Your task to perform on an android device: Clear all items from cart on target.com. Search for "logitech g pro" on target.com, select the first entry, and add it to the cart. Image 0: 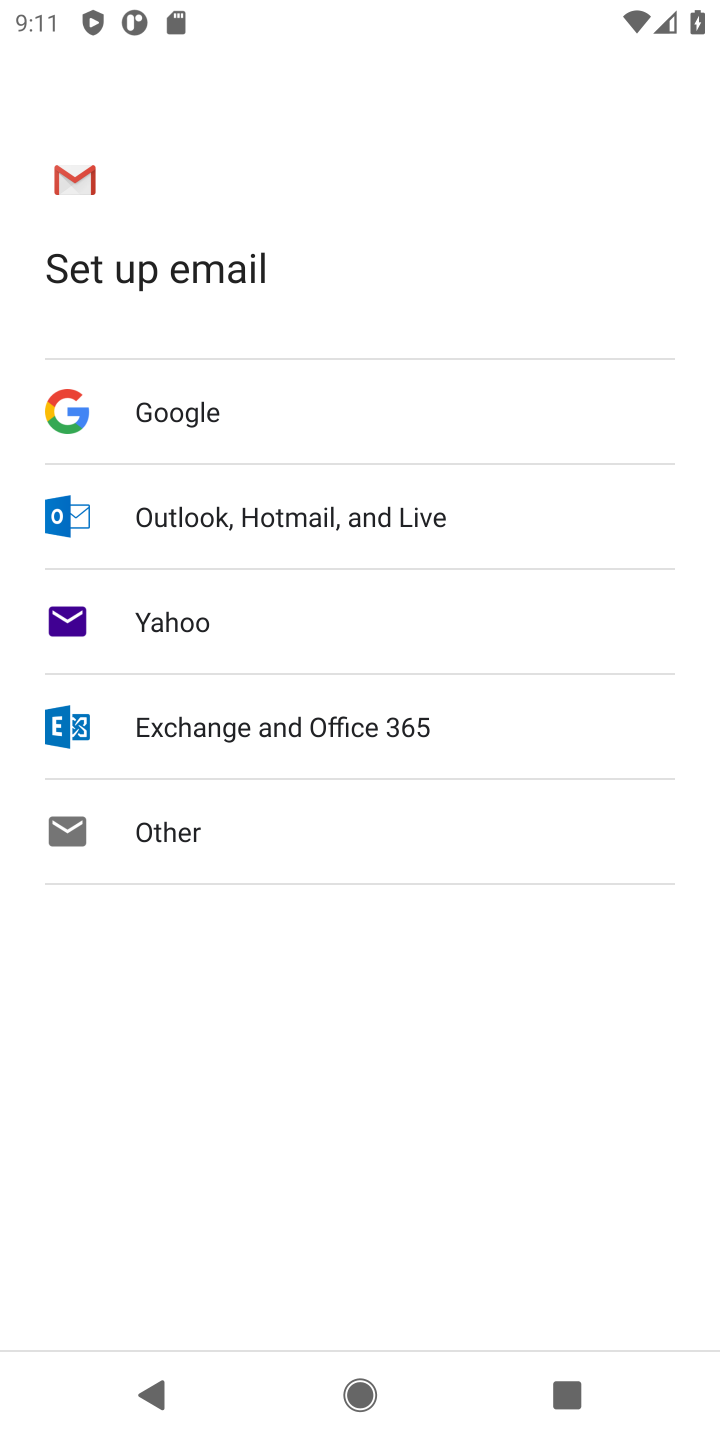
Step 0: press home button
Your task to perform on an android device: Clear all items from cart on target.com. Search for "logitech g pro" on target.com, select the first entry, and add it to the cart. Image 1: 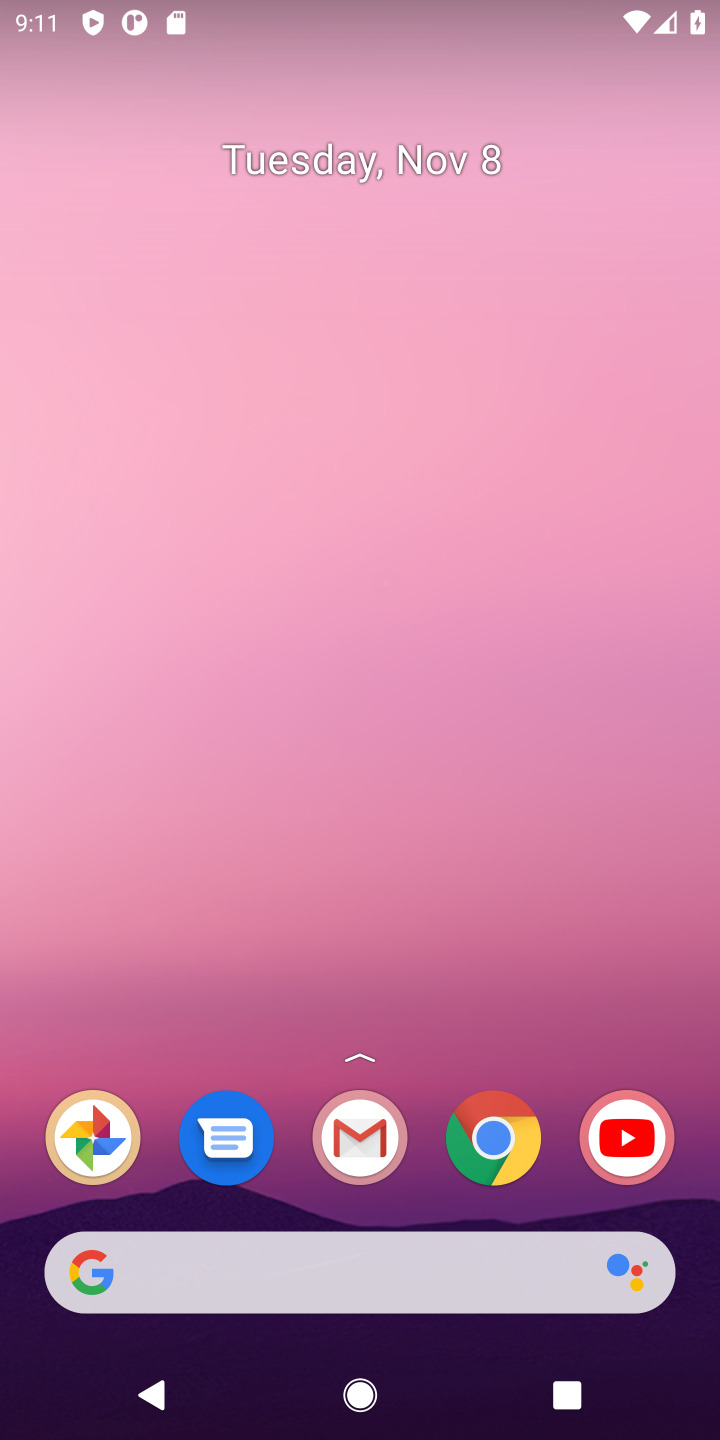
Step 1: click (503, 1128)
Your task to perform on an android device: Clear all items from cart on target.com. Search for "logitech g pro" on target.com, select the first entry, and add it to the cart. Image 2: 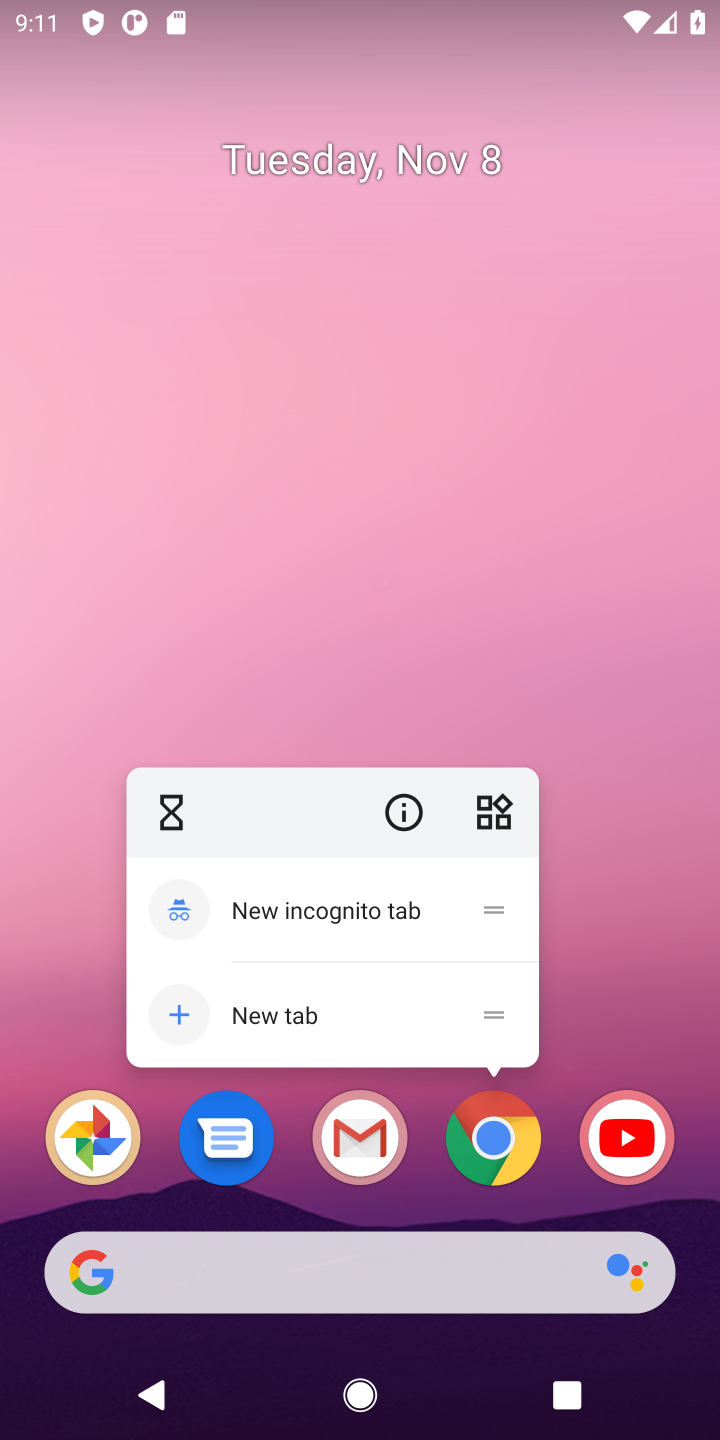
Step 2: click (503, 1127)
Your task to perform on an android device: Clear all items from cart on target.com. Search for "logitech g pro" on target.com, select the first entry, and add it to the cart. Image 3: 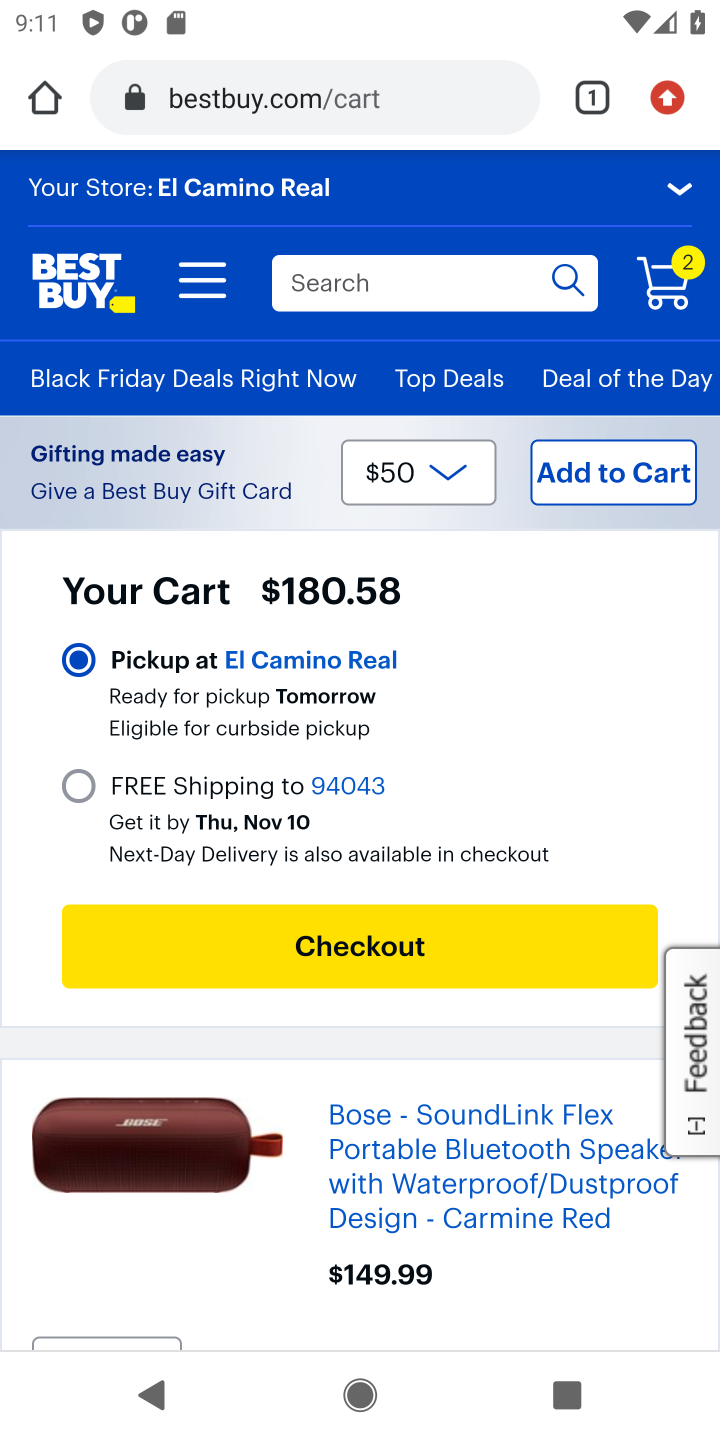
Step 3: click (360, 94)
Your task to perform on an android device: Clear all items from cart on target.com. Search for "logitech g pro" on target.com, select the first entry, and add it to the cart. Image 4: 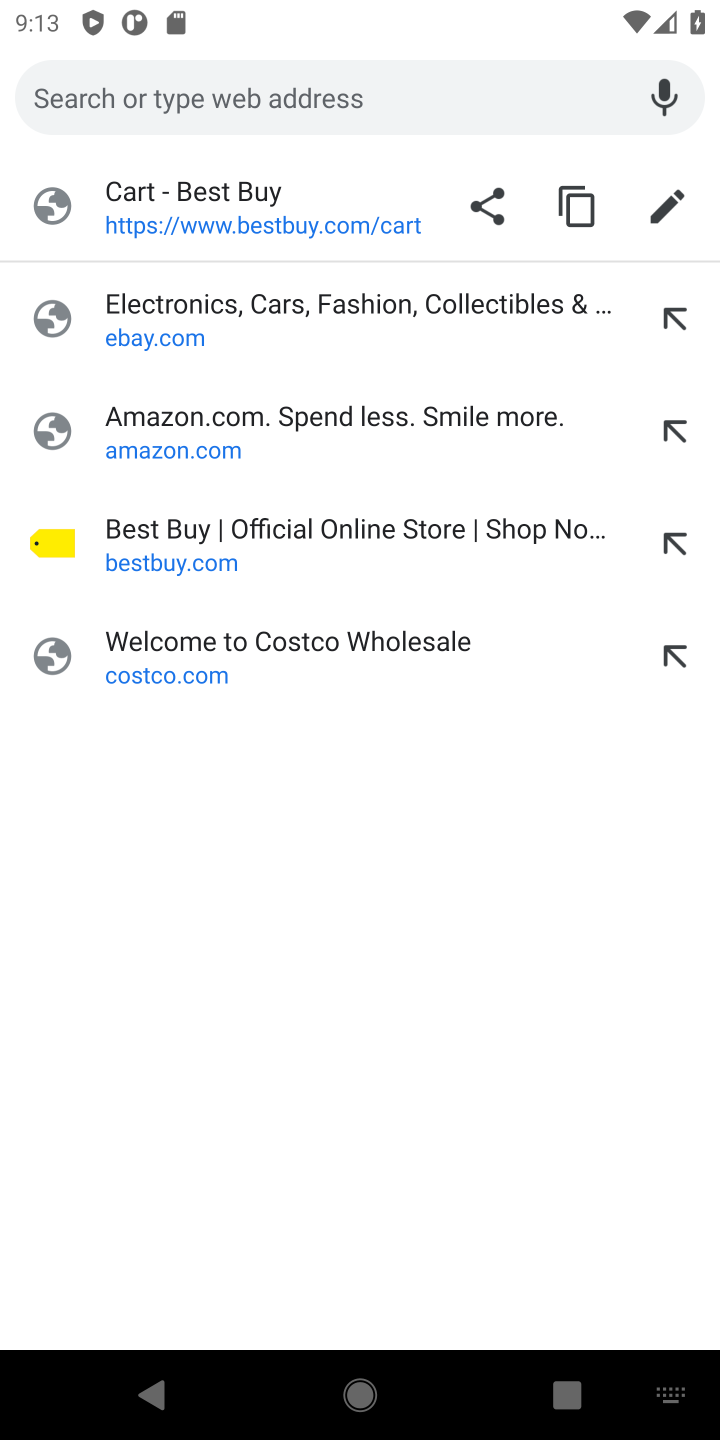
Step 4: type " target.com"
Your task to perform on an android device: Clear all items from cart on target.com. Search for "logitech g pro" on target.com, select the first entry, and add it to the cart. Image 5: 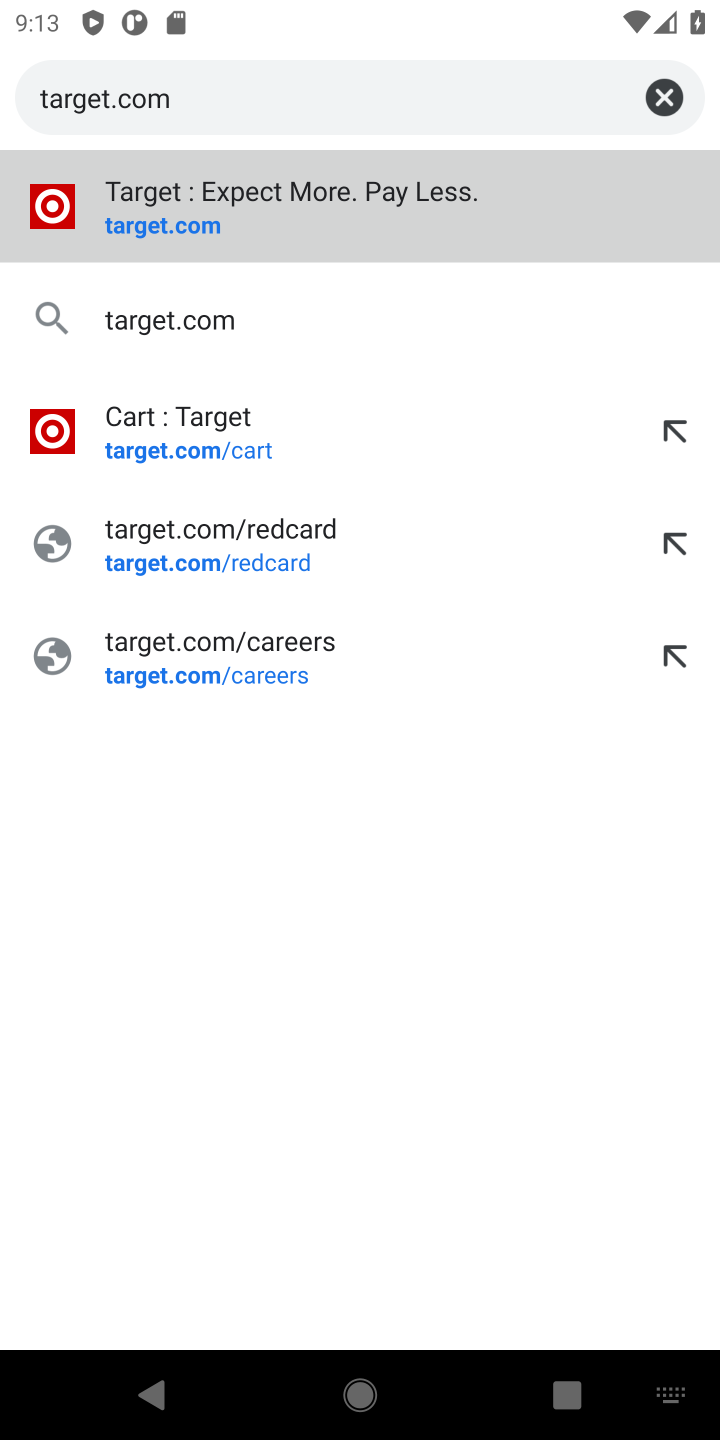
Step 5: press enter
Your task to perform on an android device: Clear all items from cart on target.com. Search for "logitech g pro" on target.com, select the first entry, and add it to the cart. Image 6: 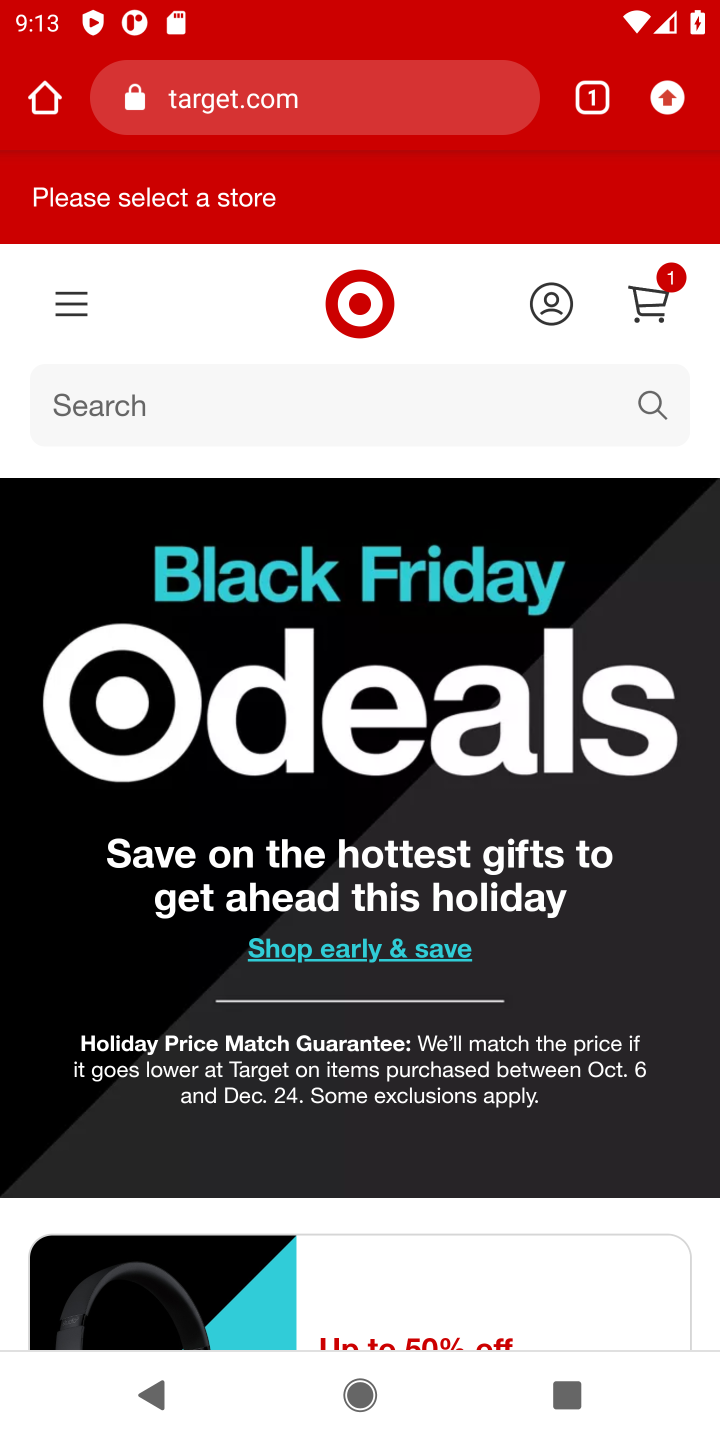
Step 6: click (176, 404)
Your task to perform on an android device: Clear all items from cart on target.com. Search for "logitech g pro" on target.com, select the first entry, and add it to the cart. Image 7: 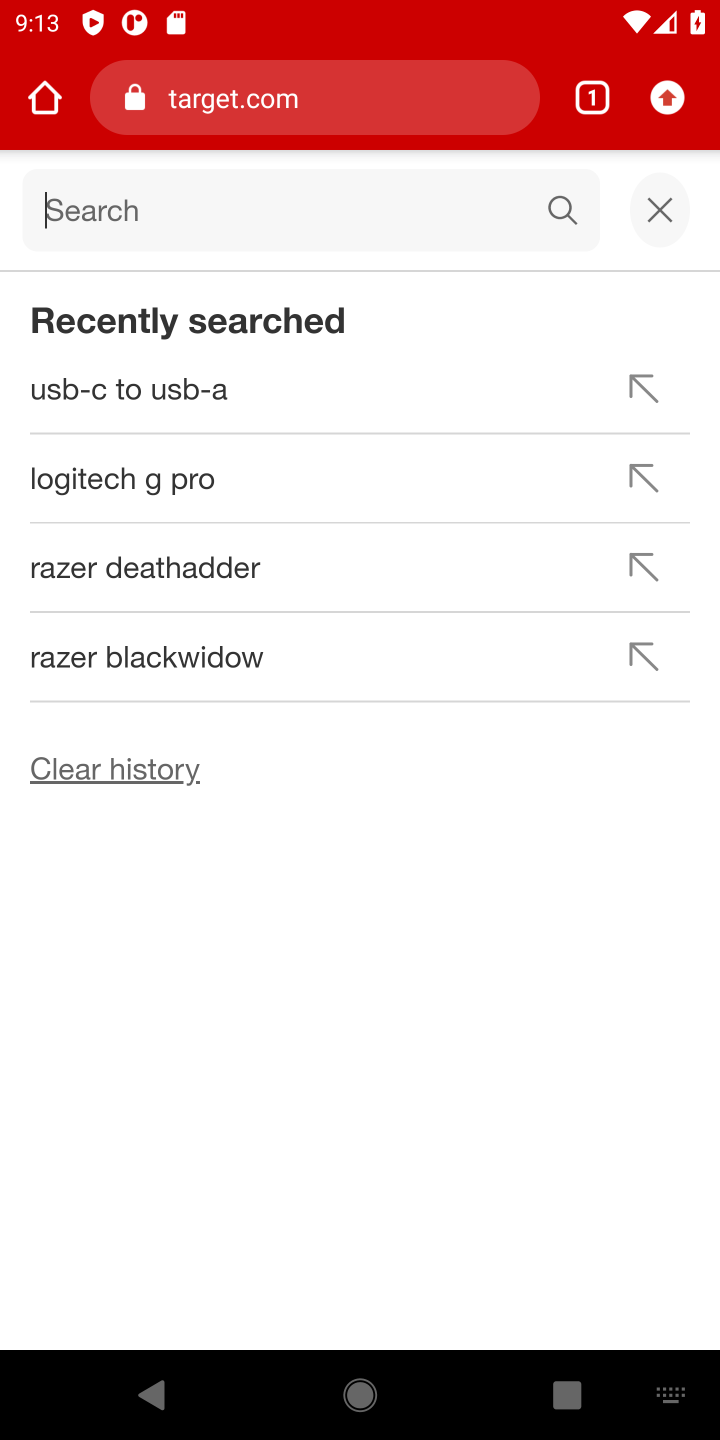
Step 7: type "logitech g pro"
Your task to perform on an android device: Clear all items from cart on target.com. Search for "logitech g pro" on target.com, select the first entry, and add it to the cart. Image 8: 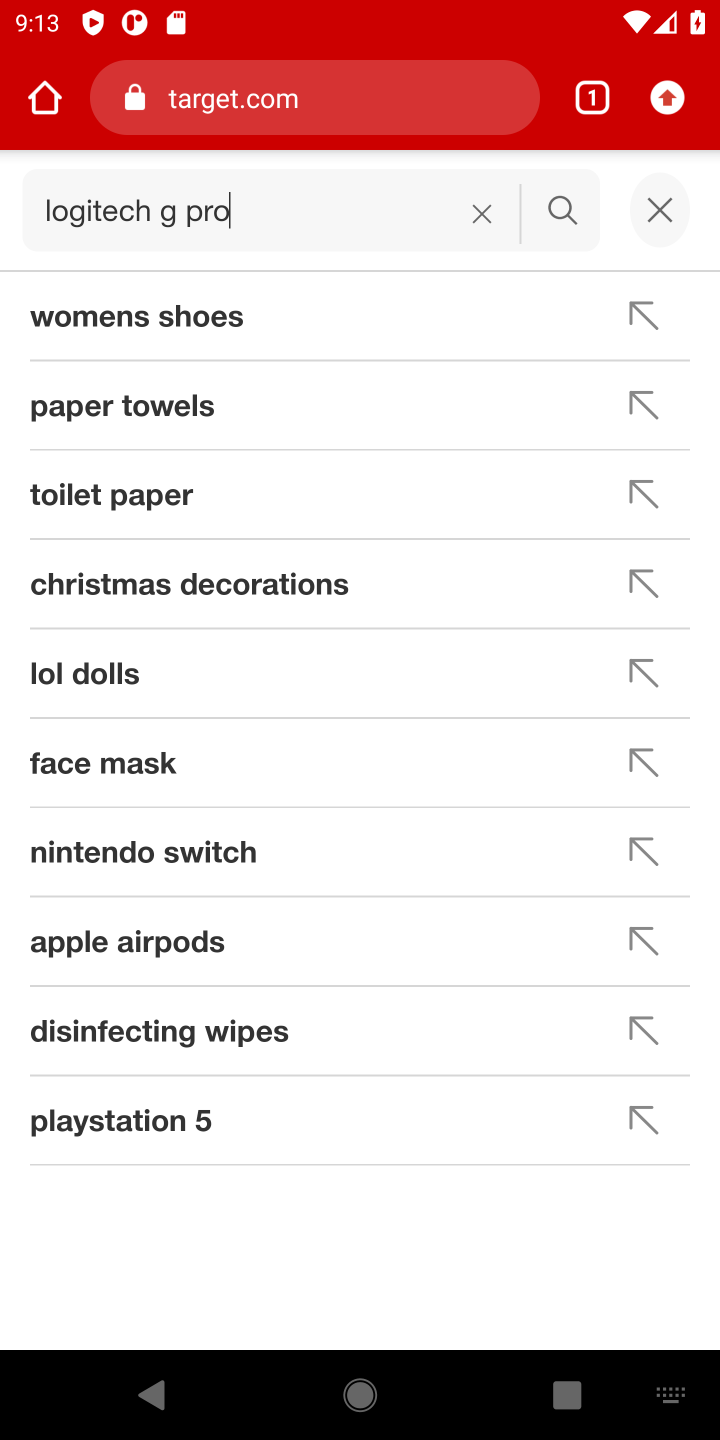
Step 8: press enter
Your task to perform on an android device: Clear all items from cart on target.com. Search for "logitech g pro" on target.com, select the first entry, and add it to the cart. Image 9: 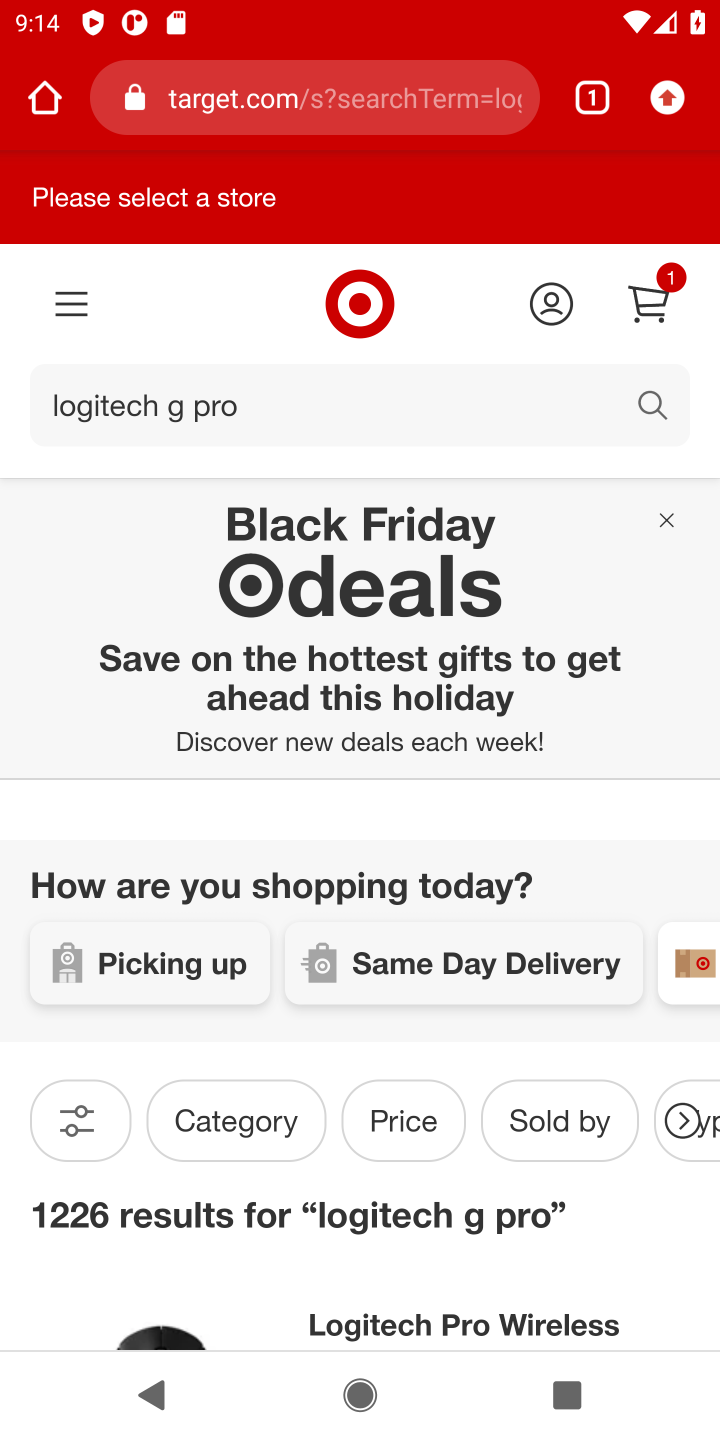
Step 9: task complete